Your task to perform on an android device: Go to Yahoo.com Image 0: 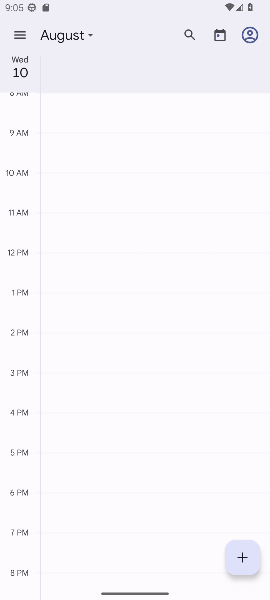
Step 0: press home button
Your task to perform on an android device: Go to Yahoo.com Image 1: 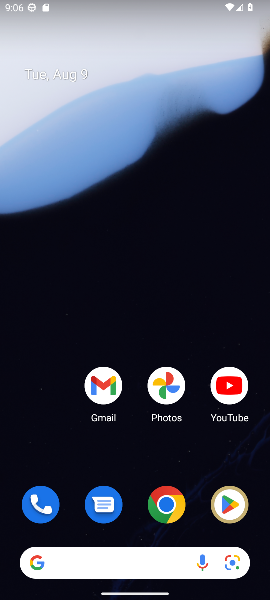
Step 1: click (164, 502)
Your task to perform on an android device: Go to Yahoo.com Image 2: 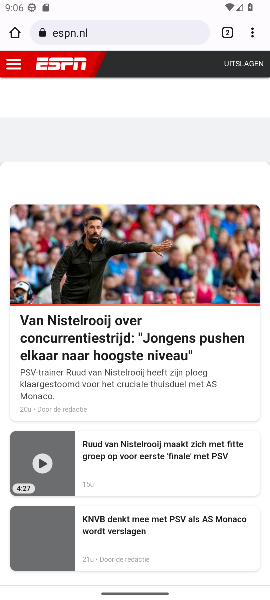
Step 2: click (243, 26)
Your task to perform on an android device: Go to Yahoo.com Image 3: 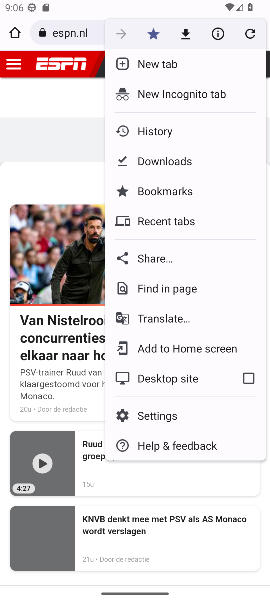
Step 3: click (149, 62)
Your task to perform on an android device: Go to Yahoo.com Image 4: 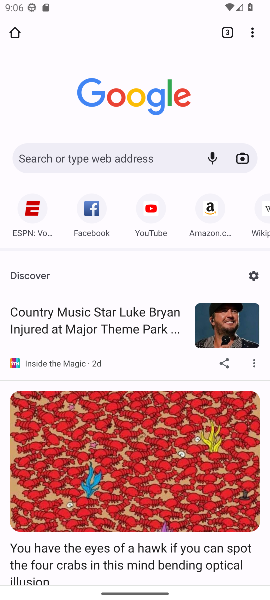
Step 4: click (147, 159)
Your task to perform on an android device: Go to Yahoo.com Image 5: 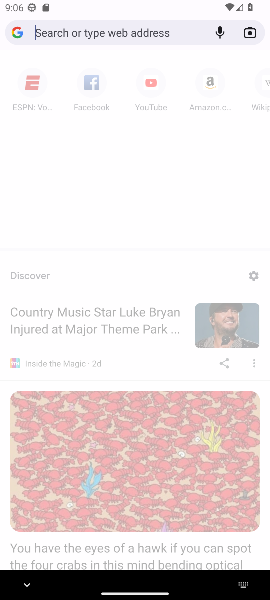
Step 5: type "yahoo"
Your task to perform on an android device: Go to Yahoo.com Image 6: 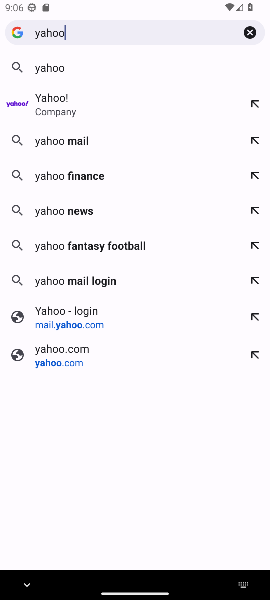
Step 6: click (49, 60)
Your task to perform on an android device: Go to Yahoo.com Image 7: 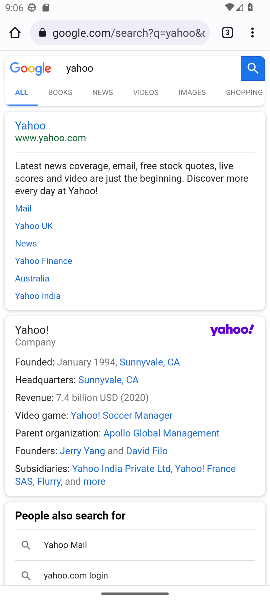
Step 7: click (30, 121)
Your task to perform on an android device: Go to Yahoo.com Image 8: 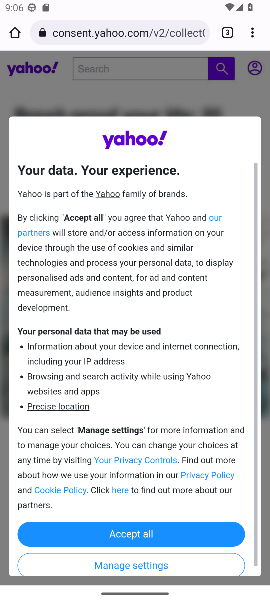
Step 8: click (141, 538)
Your task to perform on an android device: Go to Yahoo.com Image 9: 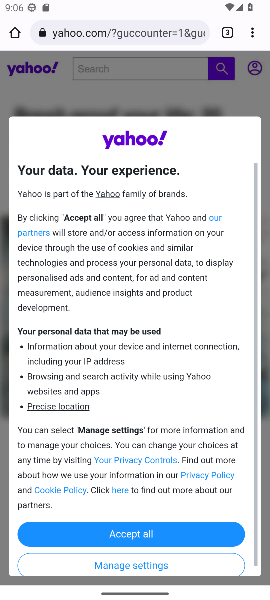
Step 9: click (141, 538)
Your task to perform on an android device: Go to Yahoo.com Image 10: 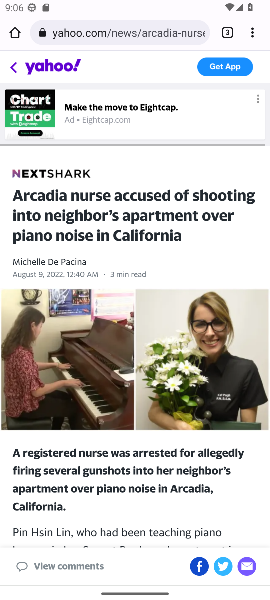
Step 10: task complete